Your task to perform on an android device: Install the Weather app Image 0: 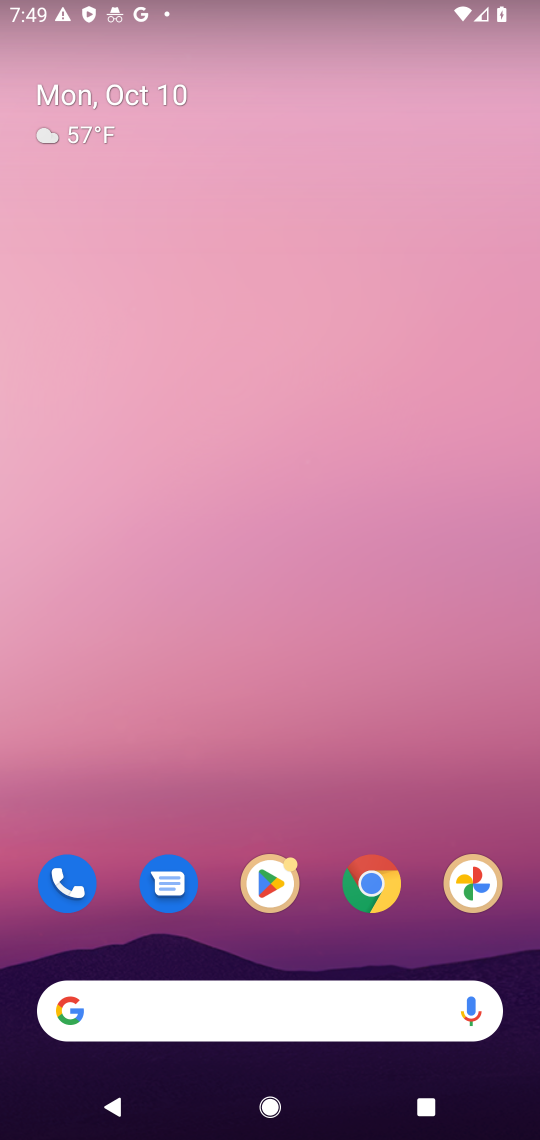
Step 0: drag from (286, 933) to (391, 193)
Your task to perform on an android device: Install the Weather app Image 1: 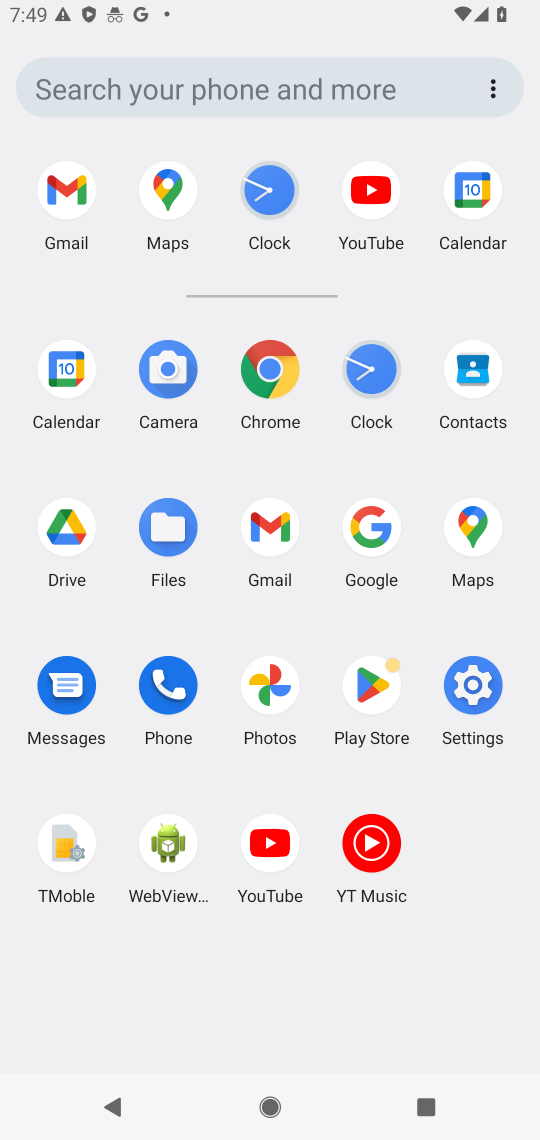
Step 1: click (371, 543)
Your task to perform on an android device: Install the Weather app Image 2: 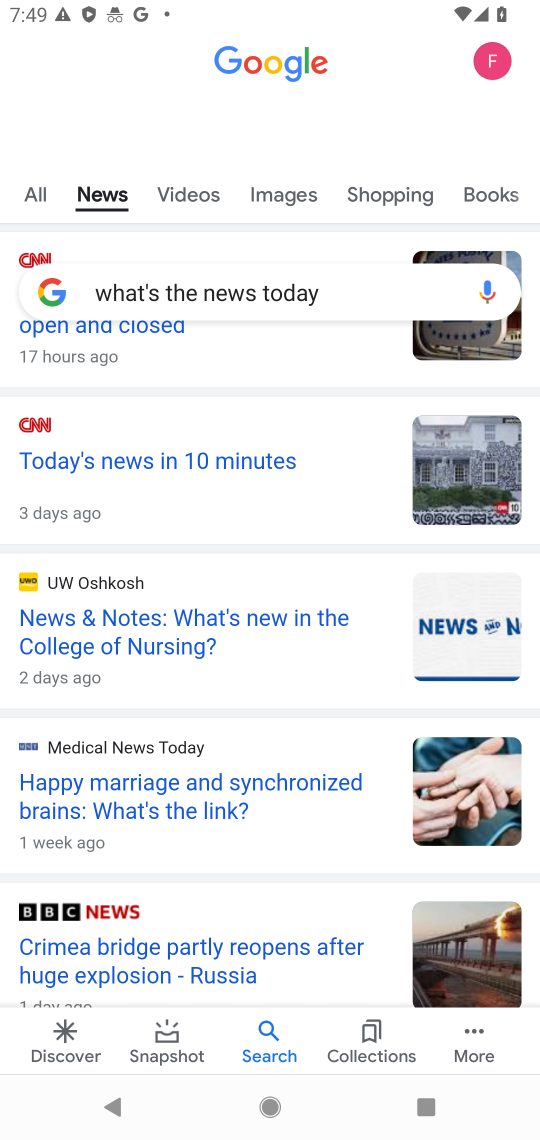
Step 2: click (355, 295)
Your task to perform on an android device: Install the Weather app Image 3: 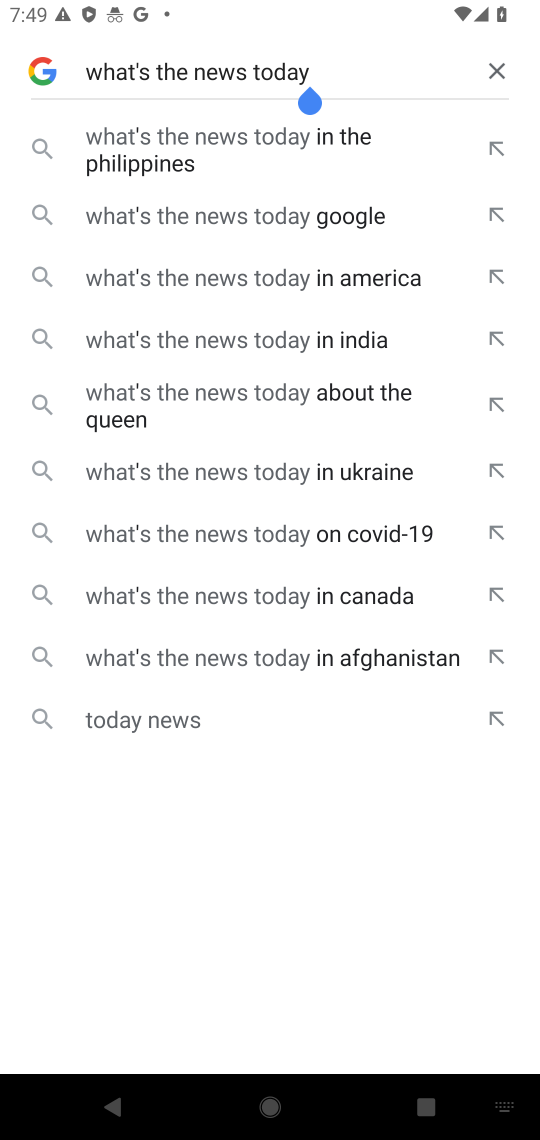
Step 3: click (501, 72)
Your task to perform on an android device: Install the Weather app Image 4: 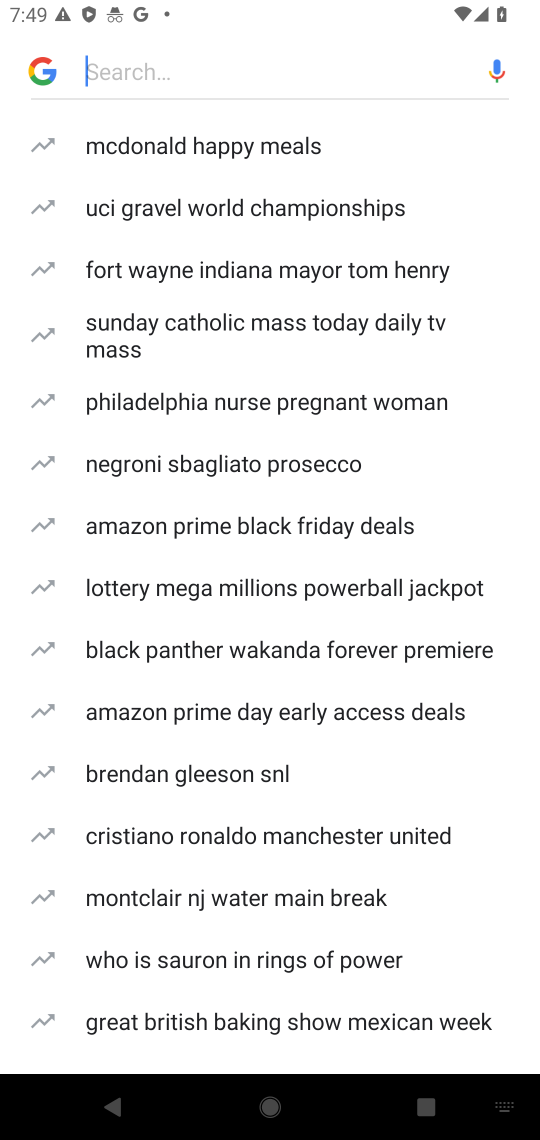
Step 4: type "Weather app"
Your task to perform on an android device: Install the Weather app Image 5: 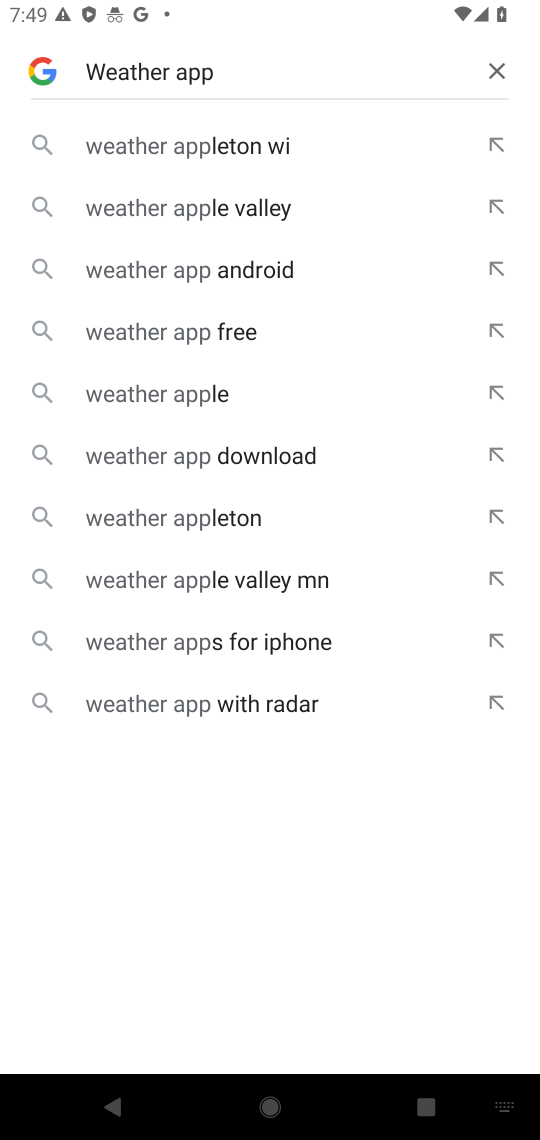
Step 5: click (322, 329)
Your task to perform on an android device: Install the Weather app Image 6: 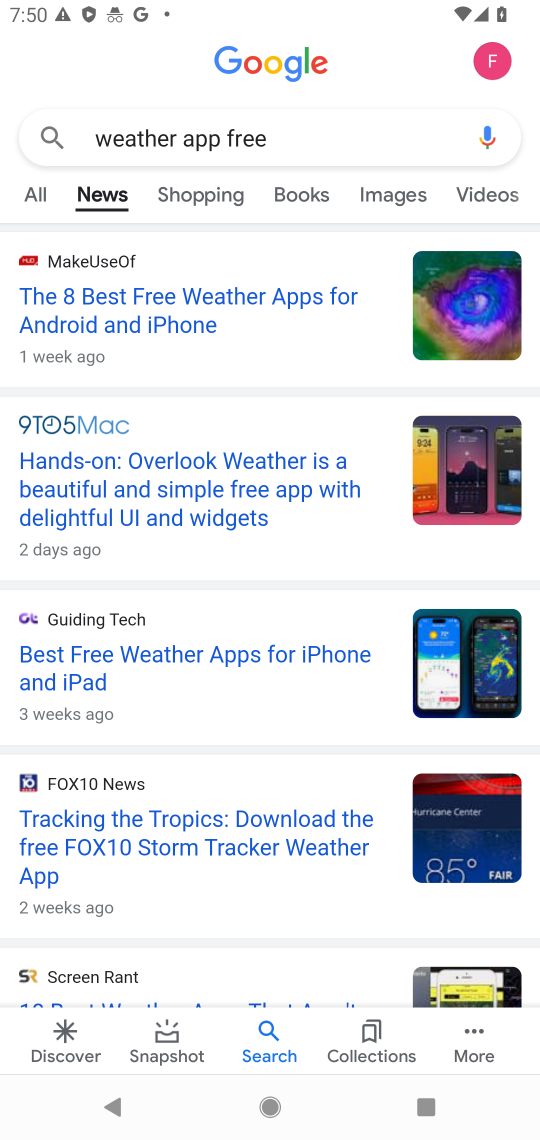
Step 6: press home button
Your task to perform on an android device: Install the Weather app Image 7: 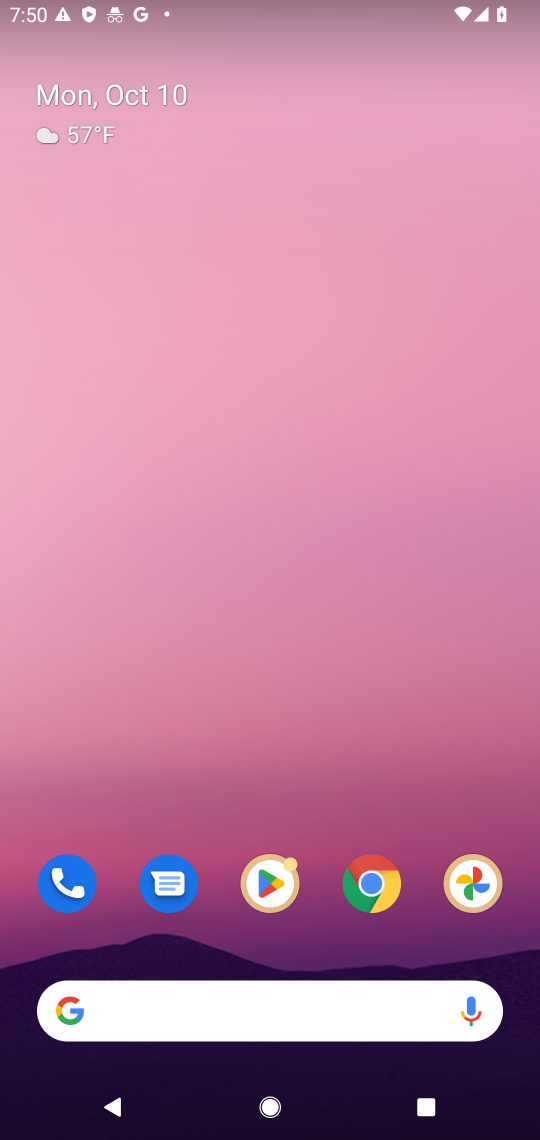
Step 7: click (281, 897)
Your task to perform on an android device: Install the Weather app Image 8: 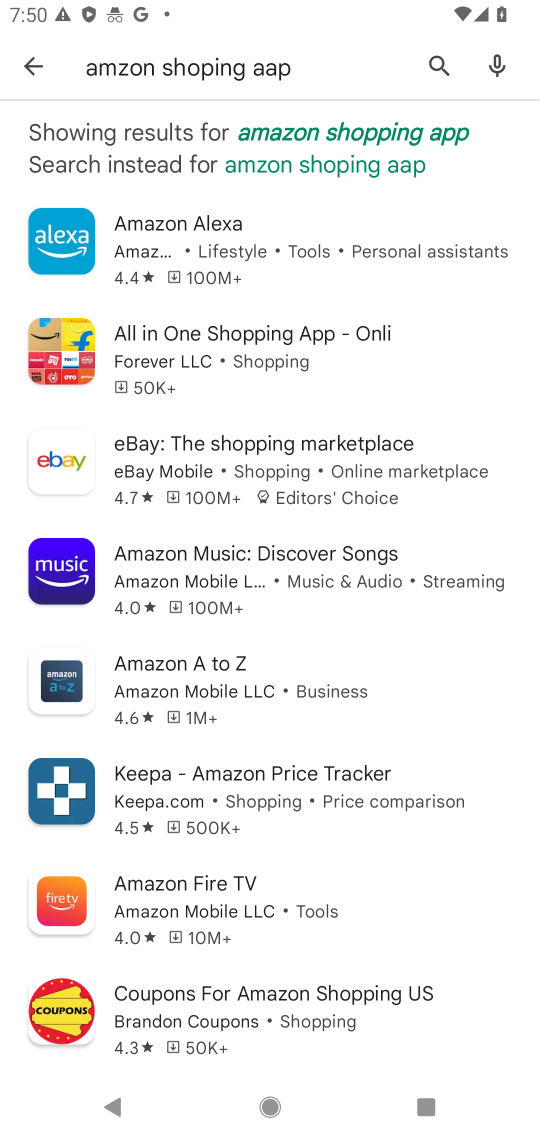
Step 8: click (427, 71)
Your task to perform on an android device: Install the Weather app Image 9: 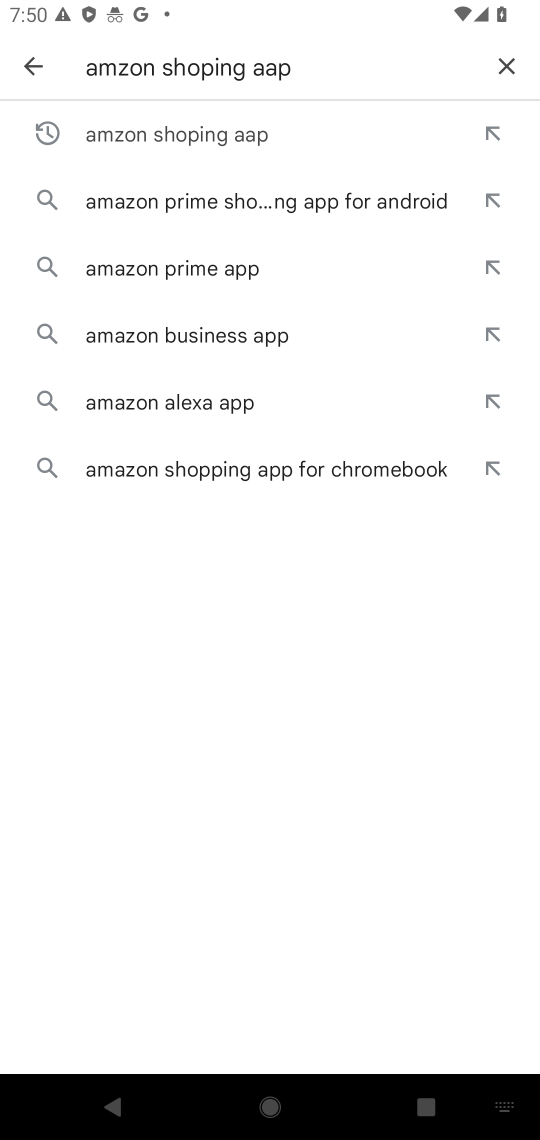
Step 9: click (509, 64)
Your task to perform on an android device: Install the Weather app Image 10: 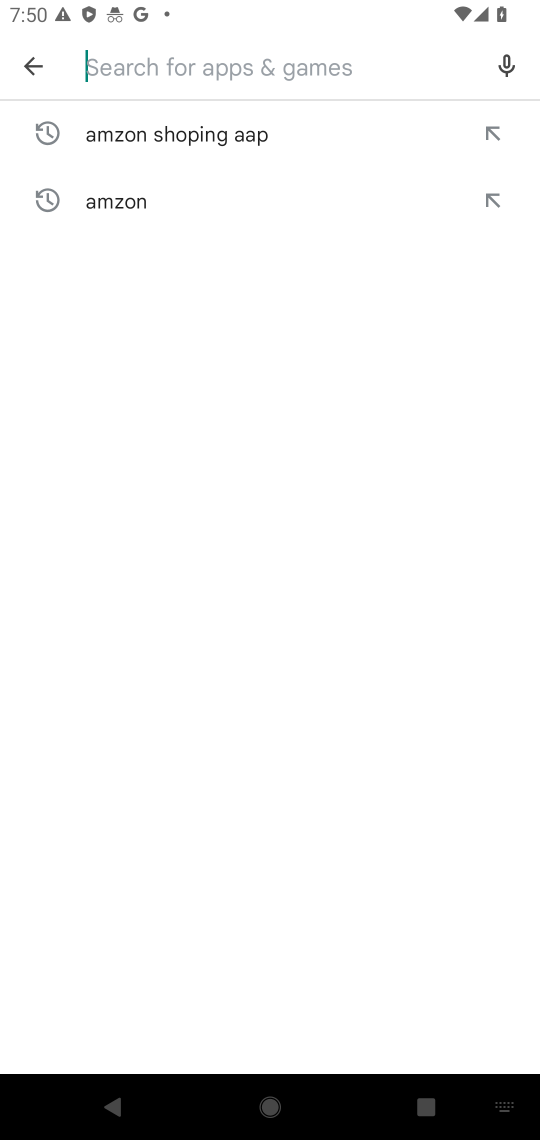
Step 10: type "weather"
Your task to perform on an android device: Install the Weather app Image 11: 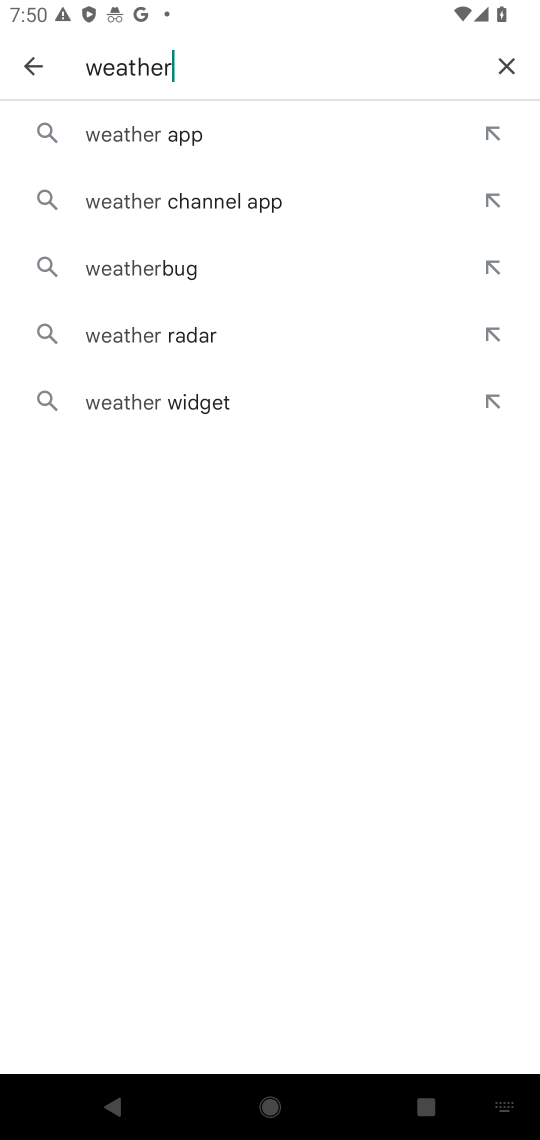
Step 11: click (226, 126)
Your task to perform on an android device: Install the Weather app Image 12: 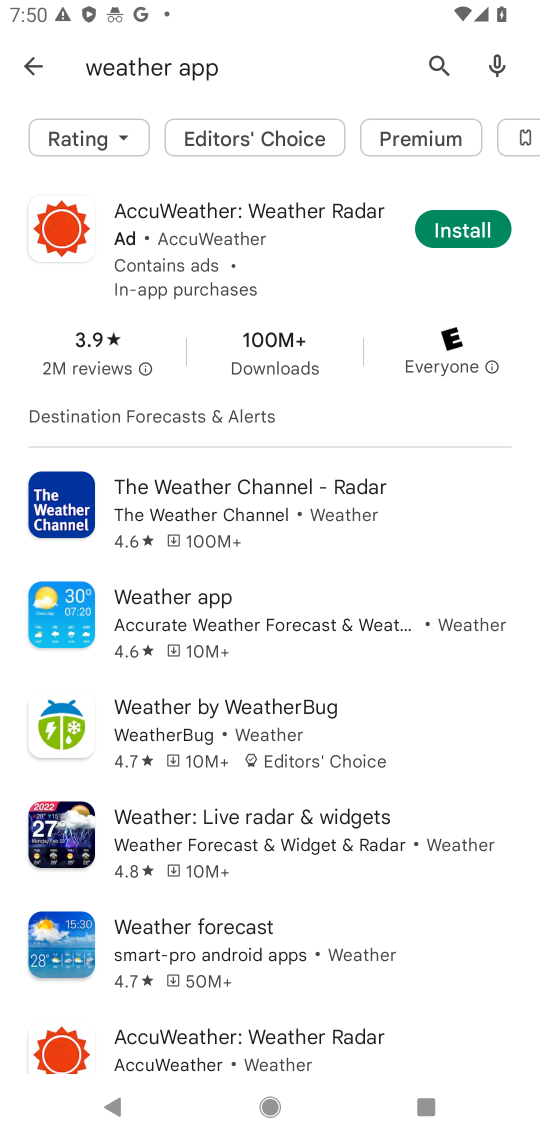
Step 12: click (452, 229)
Your task to perform on an android device: Install the Weather app Image 13: 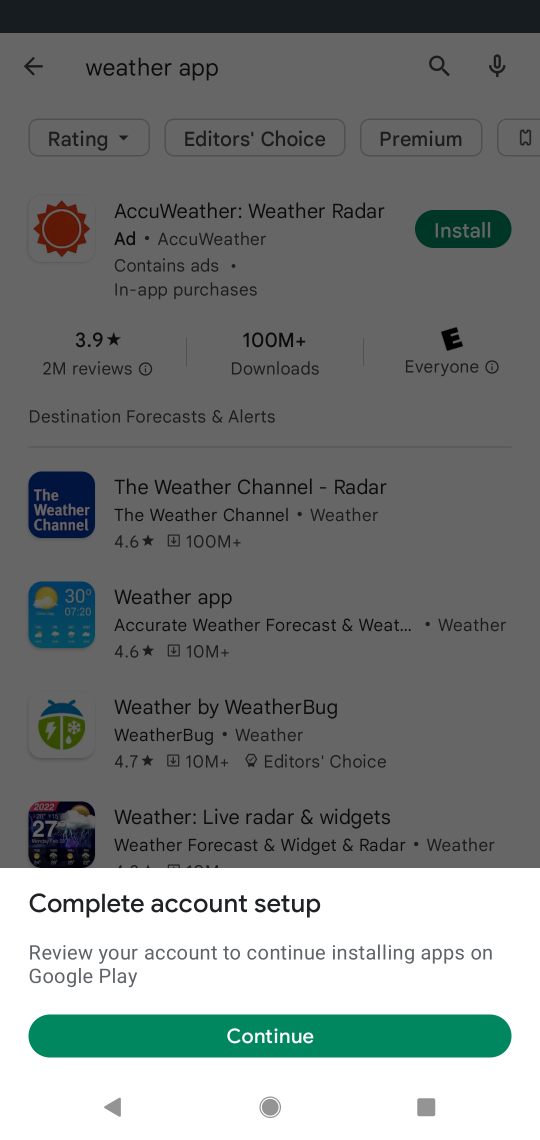
Step 13: click (312, 1038)
Your task to perform on an android device: Install the Weather app Image 14: 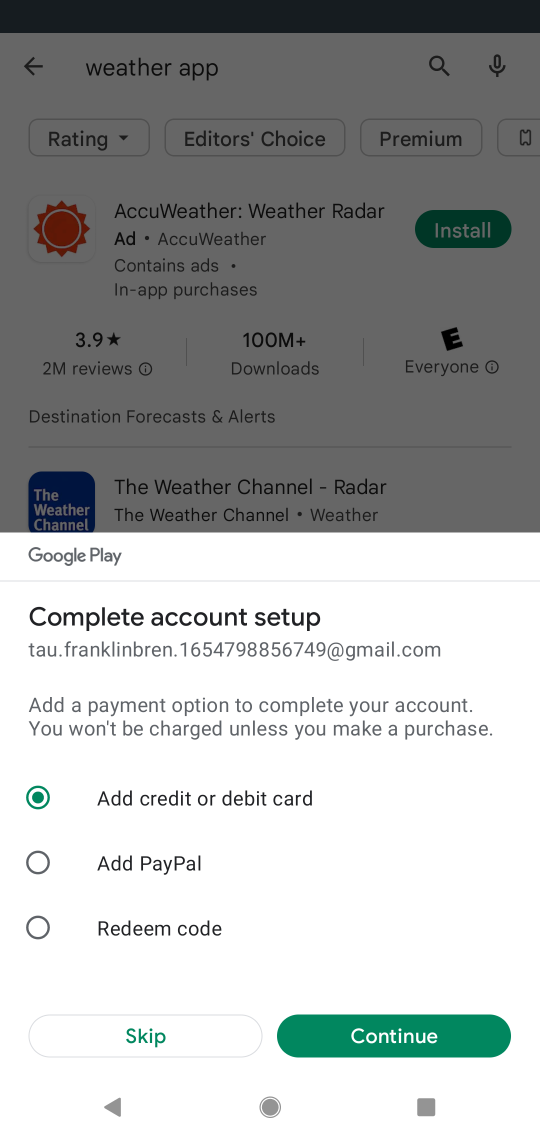
Step 14: click (167, 1040)
Your task to perform on an android device: Install the Weather app Image 15: 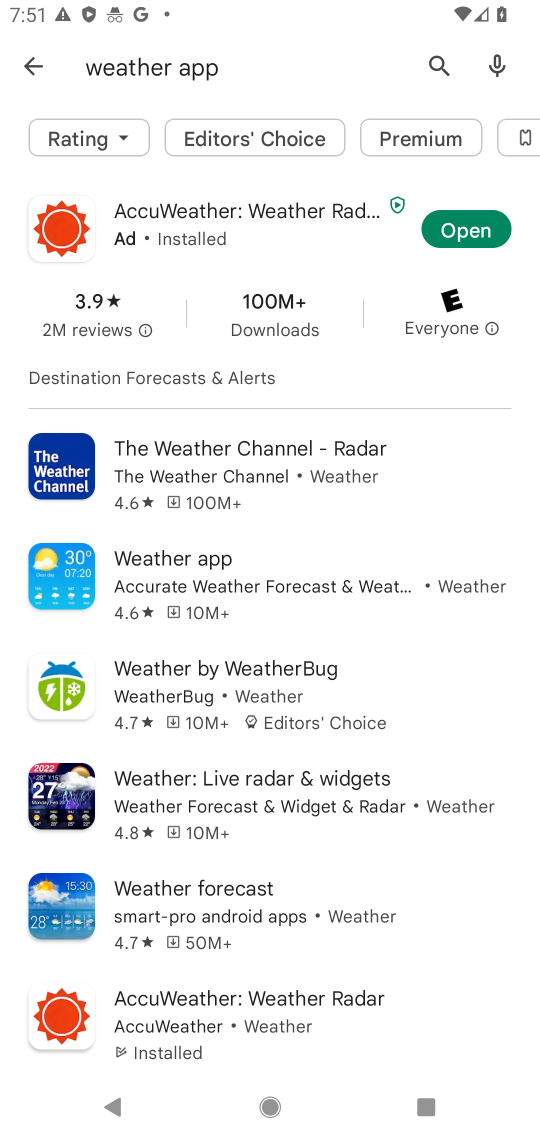
Step 15: task complete